Your task to perform on an android device: turn on the 24-hour format for clock Image 0: 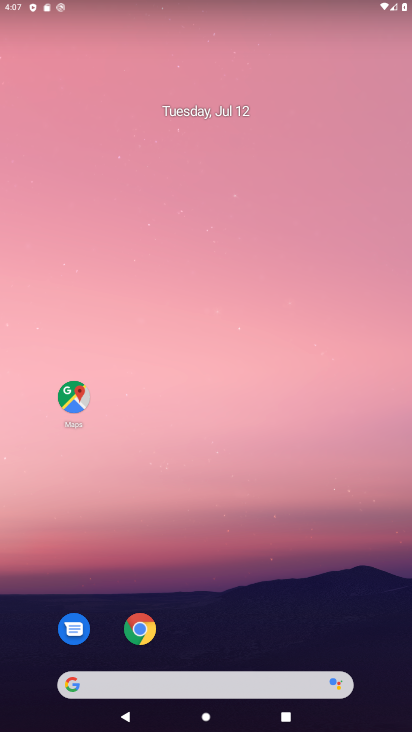
Step 0: drag from (288, 601) to (201, 51)
Your task to perform on an android device: turn on the 24-hour format for clock Image 1: 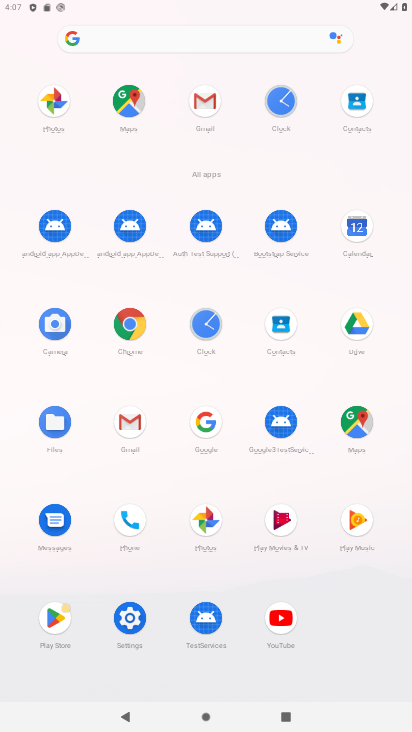
Step 1: click (211, 325)
Your task to perform on an android device: turn on the 24-hour format for clock Image 2: 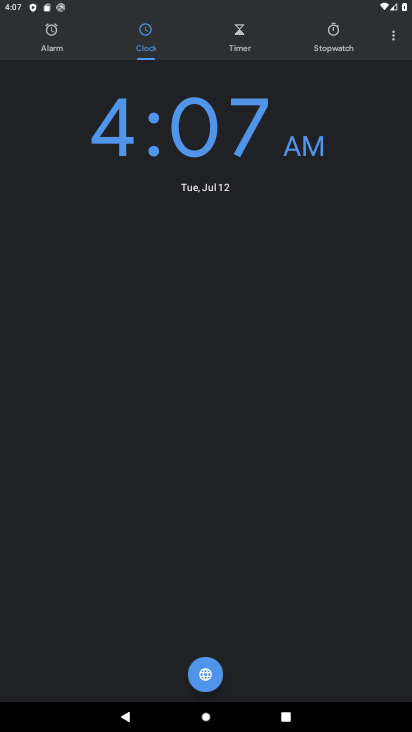
Step 2: click (391, 35)
Your task to perform on an android device: turn on the 24-hour format for clock Image 3: 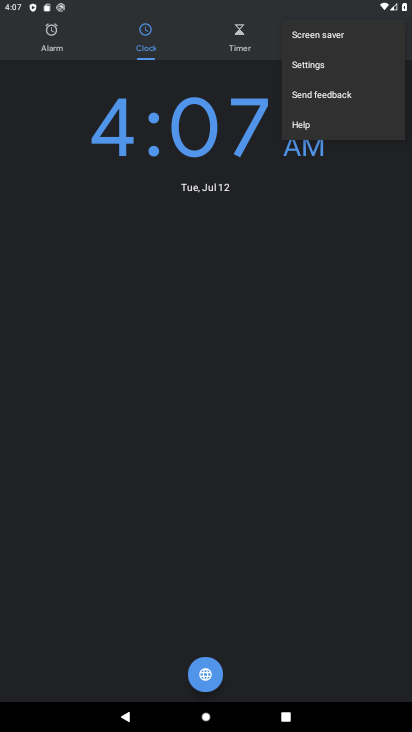
Step 3: click (307, 63)
Your task to perform on an android device: turn on the 24-hour format for clock Image 4: 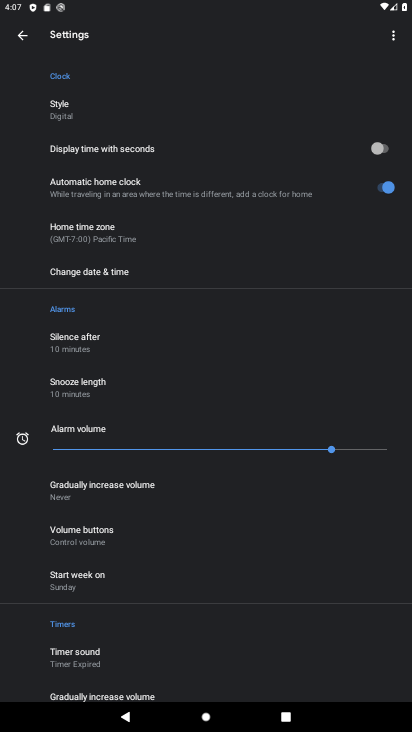
Step 4: click (117, 277)
Your task to perform on an android device: turn on the 24-hour format for clock Image 5: 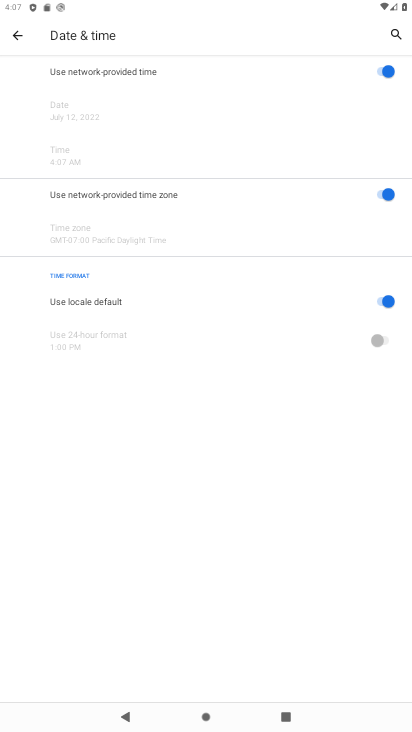
Step 5: click (383, 336)
Your task to perform on an android device: turn on the 24-hour format for clock Image 6: 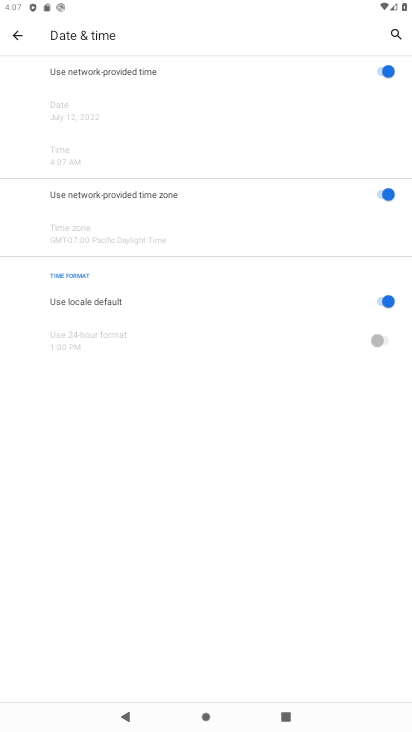
Step 6: click (381, 338)
Your task to perform on an android device: turn on the 24-hour format for clock Image 7: 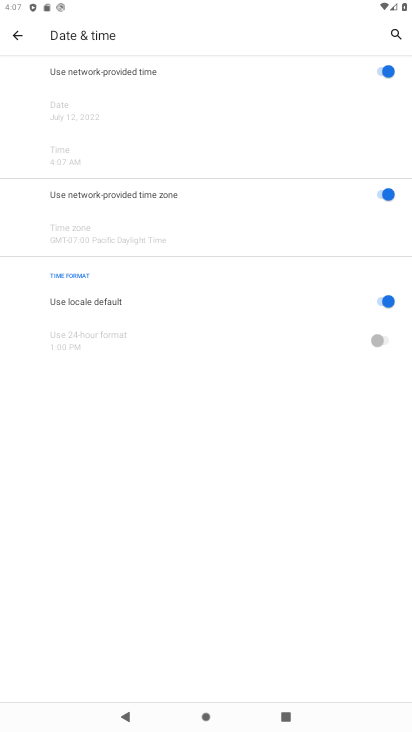
Step 7: click (390, 299)
Your task to perform on an android device: turn on the 24-hour format for clock Image 8: 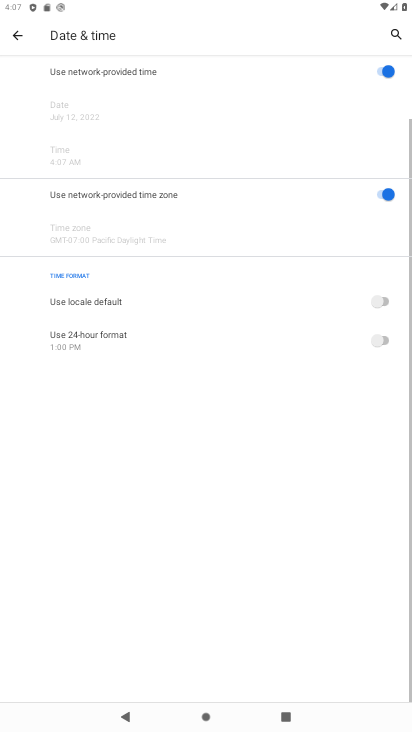
Step 8: click (381, 341)
Your task to perform on an android device: turn on the 24-hour format for clock Image 9: 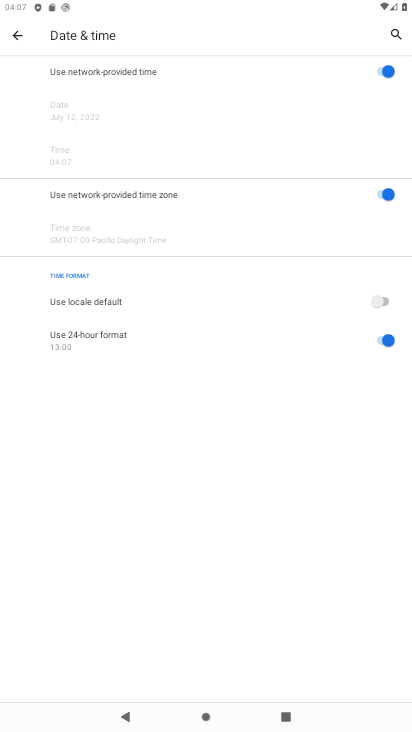
Step 9: task complete